Your task to perform on an android device: Open display settings Image 0: 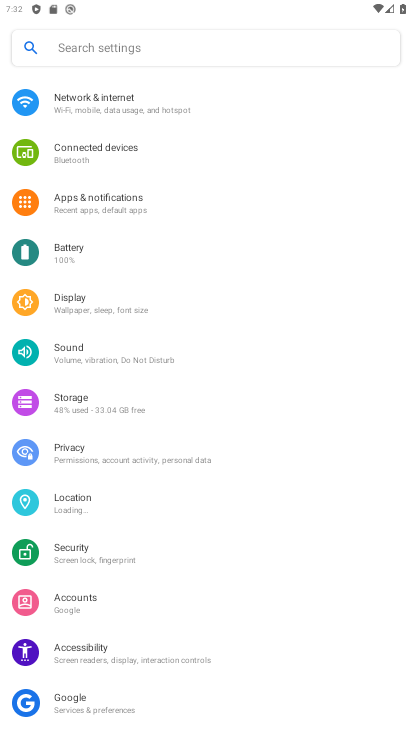
Step 0: drag from (168, 668) to (183, 127)
Your task to perform on an android device: Open display settings Image 1: 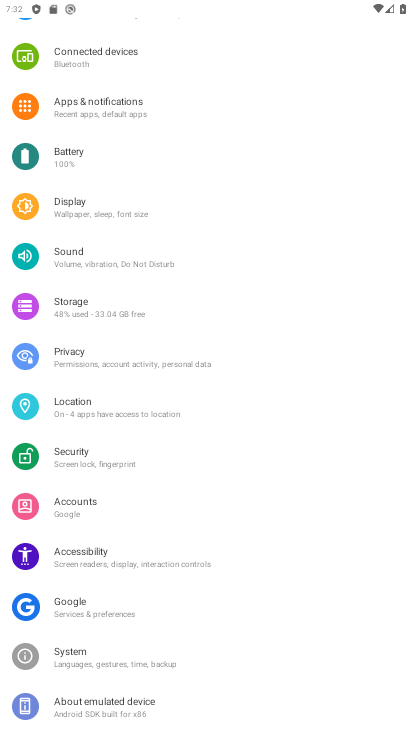
Step 1: click (113, 208)
Your task to perform on an android device: Open display settings Image 2: 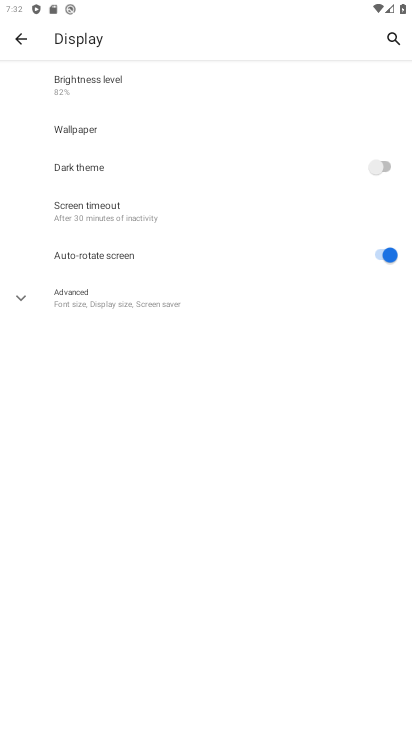
Step 2: task complete